Your task to perform on an android device: Open Google Chrome Image 0: 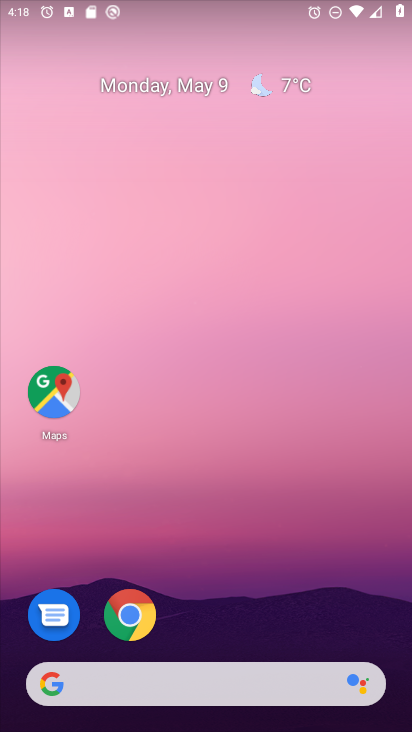
Step 0: click (128, 615)
Your task to perform on an android device: Open Google Chrome Image 1: 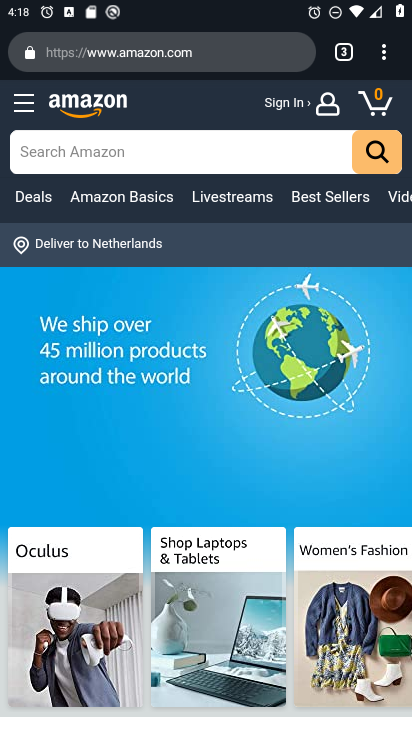
Step 1: task complete